Your task to perform on an android device: turn notification dots on Image 0: 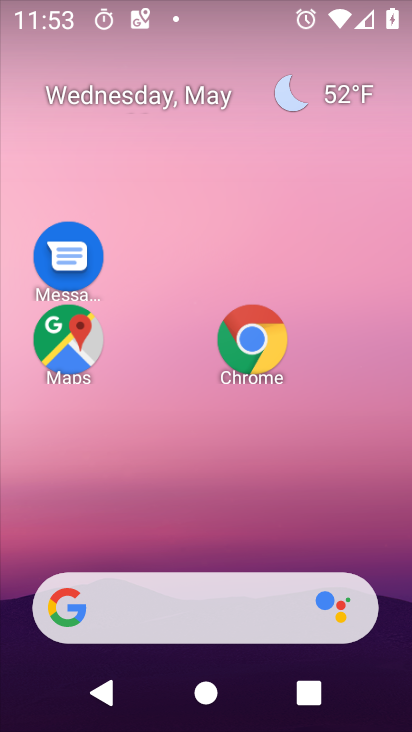
Step 0: drag from (175, 497) to (171, 58)
Your task to perform on an android device: turn notification dots on Image 1: 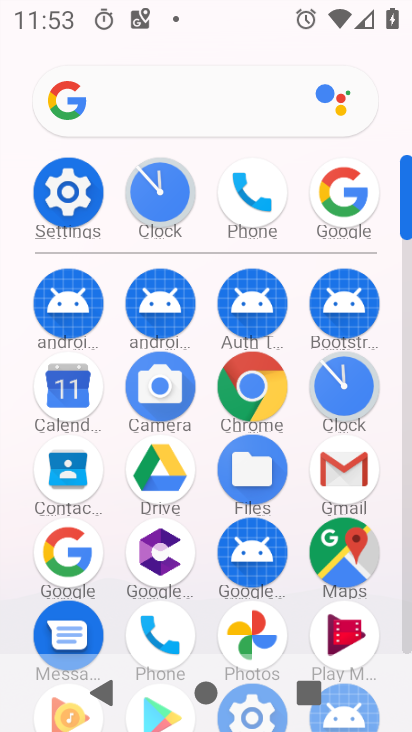
Step 1: click (66, 187)
Your task to perform on an android device: turn notification dots on Image 2: 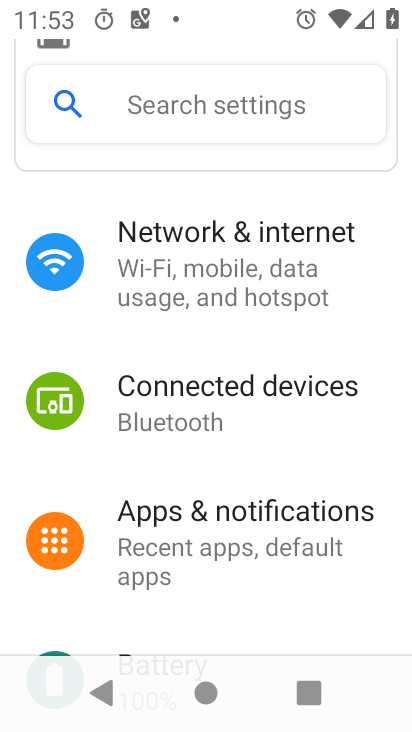
Step 2: drag from (268, 572) to (273, 453)
Your task to perform on an android device: turn notification dots on Image 3: 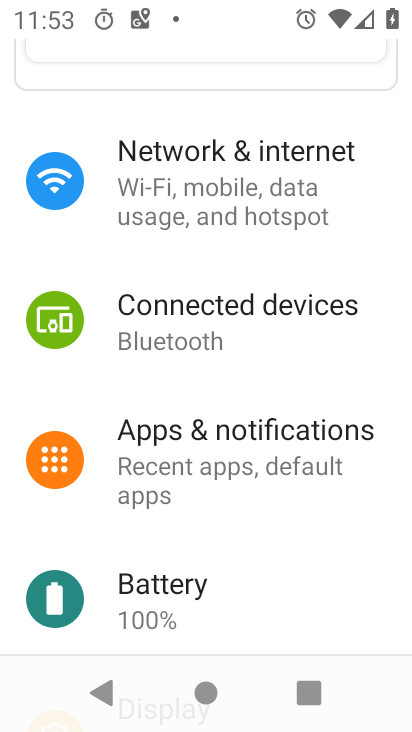
Step 3: click (232, 449)
Your task to perform on an android device: turn notification dots on Image 4: 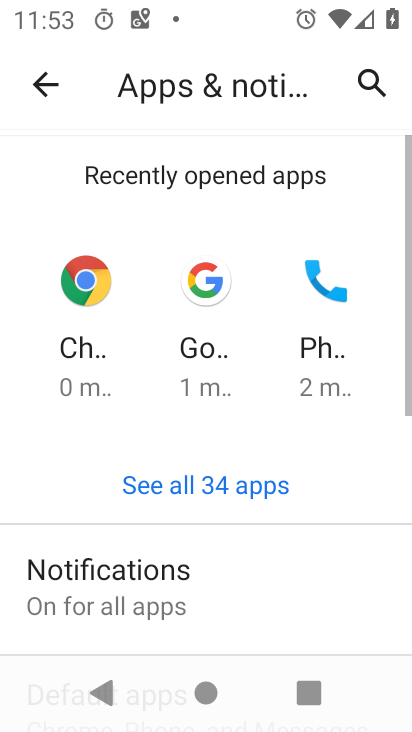
Step 4: drag from (237, 583) to (233, 279)
Your task to perform on an android device: turn notification dots on Image 5: 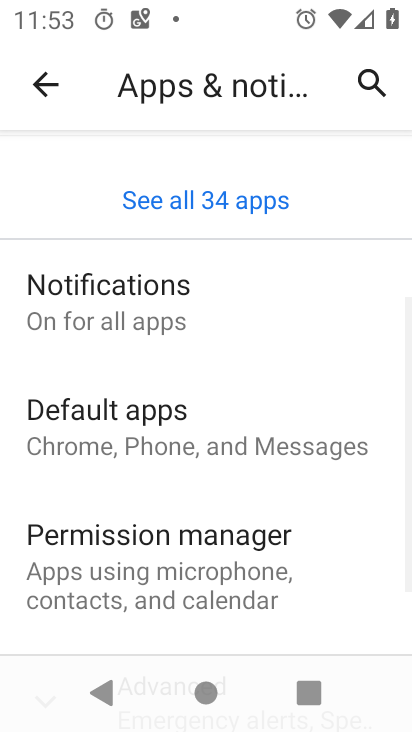
Step 5: click (146, 309)
Your task to perform on an android device: turn notification dots on Image 6: 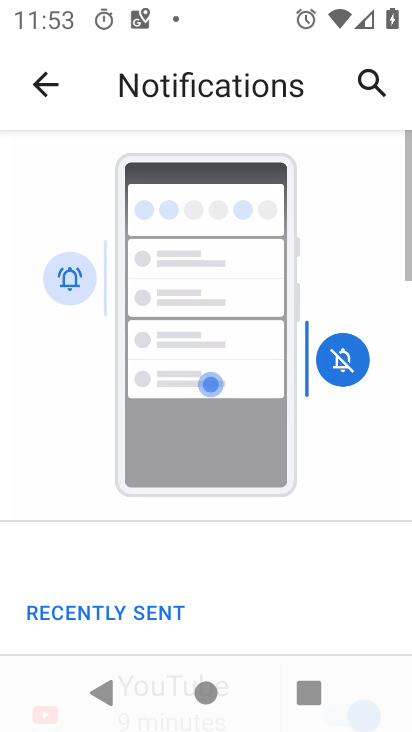
Step 6: drag from (263, 582) to (242, 127)
Your task to perform on an android device: turn notification dots on Image 7: 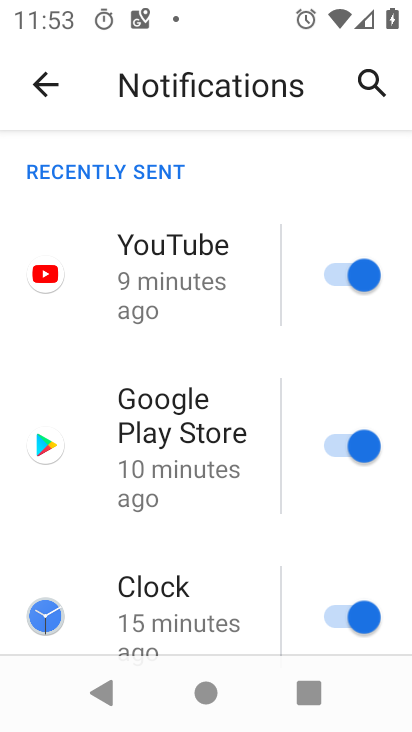
Step 7: drag from (224, 516) to (208, 115)
Your task to perform on an android device: turn notification dots on Image 8: 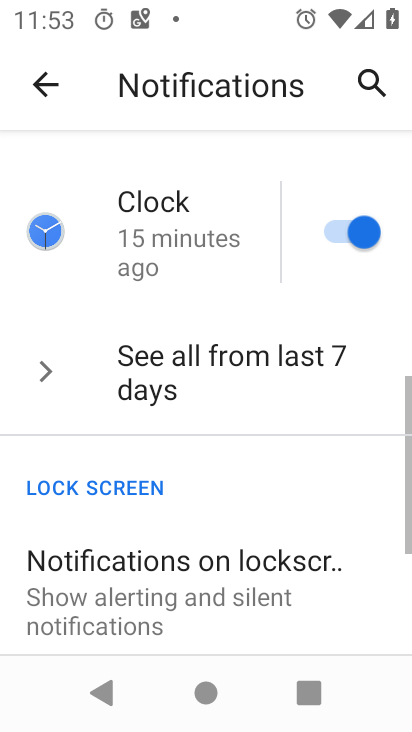
Step 8: drag from (225, 587) to (202, 271)
Your task to perform on an android device: turn notification dots on Image 9: 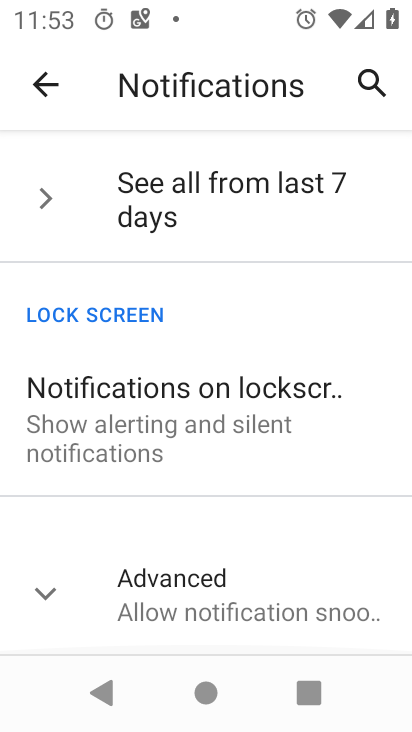
Step 9: click (192, 592)
Your task to perform on an android device: turn notification dots on Image 10: 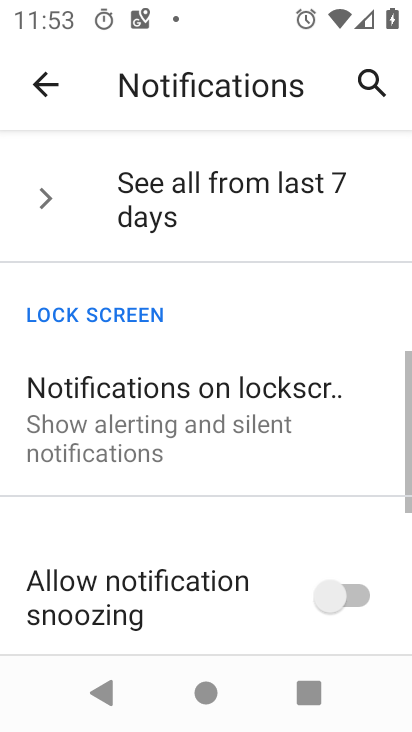
Step 10: drag from (257, 535) to (234, 98)
Your task to perform on an android device: turn notification dots on Image 11: 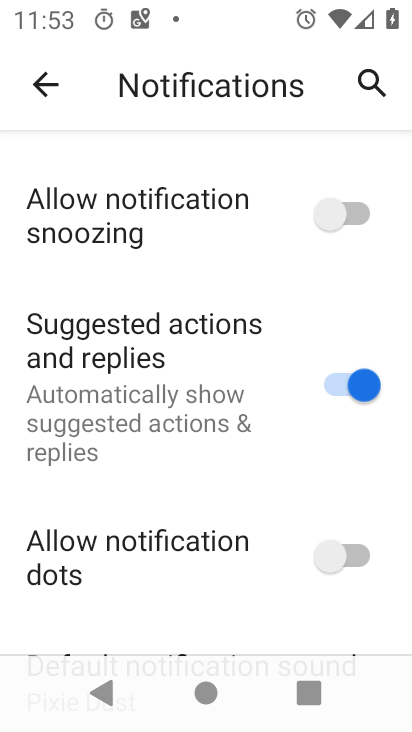
Step 11: click (354, 551)
Your task to perform on an android device: turn notification dots on Image 12: 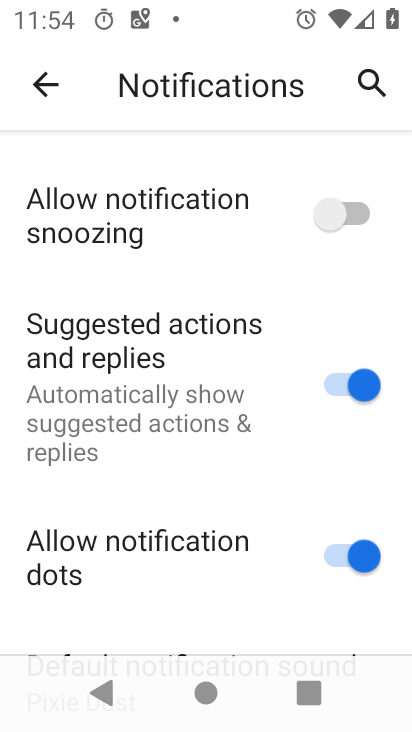
Step 12: task complete